Your task to perform on an android device: Is it going to rain today? Image 0: 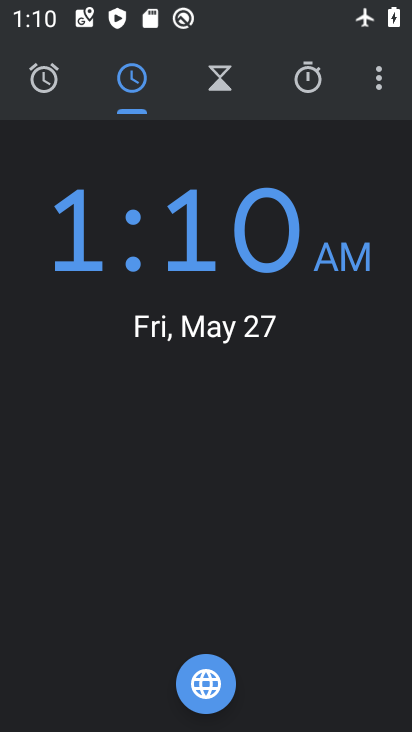
Step 0: press home button
Your task to perform on an android device: Is it going to rain today? Image 1: 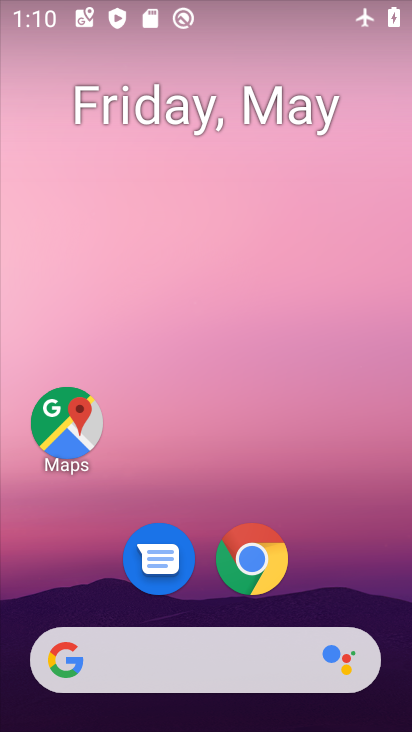
Step 1: drag from (371, 559) to (210, 102)
Your task to perform on an android device: Is it going to rain today? Image 2: 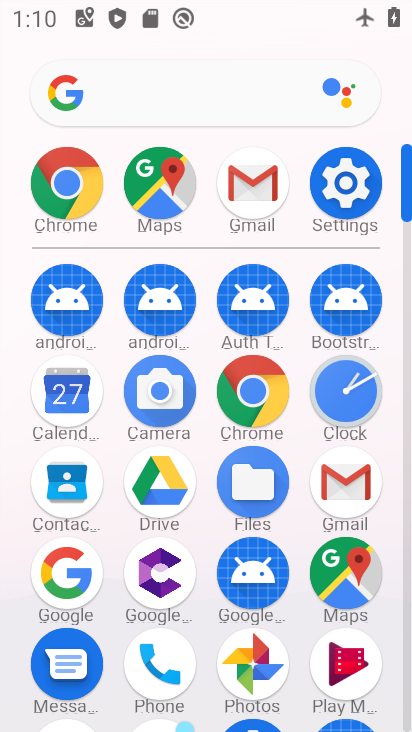
Step 2: click (69, 181)
Your task to perform on an android device: Is it going to rain today? Image 3: 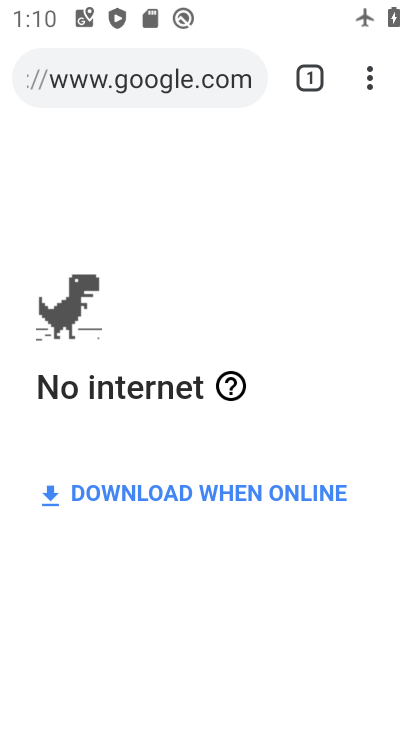
Step 3: click (123, 80)
Your task to perform on an android device: Is it going to rain today? Image 4: 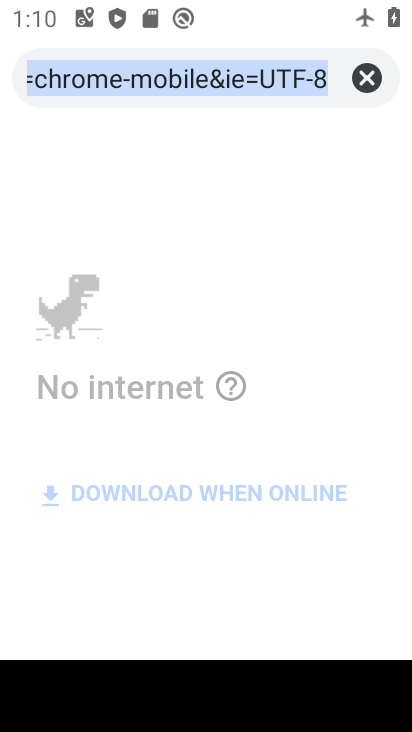
Step 4: type "weather"
Your task to perform on an android device: Is it going to rain today? Image 5: 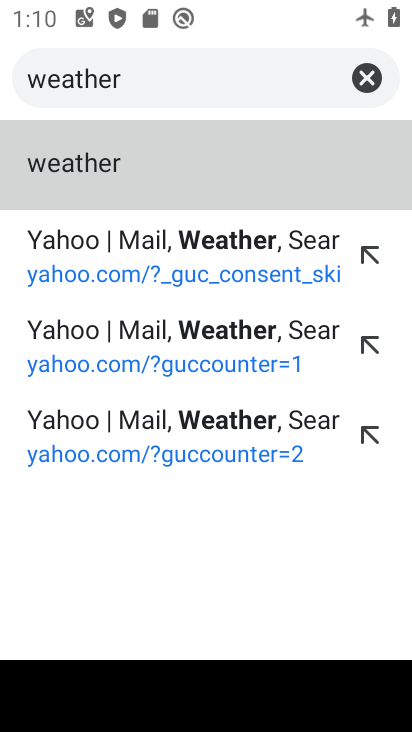
Step 5: click (40, 155)
Your task to perform on an android device: Is it going to rain today? Image 6: 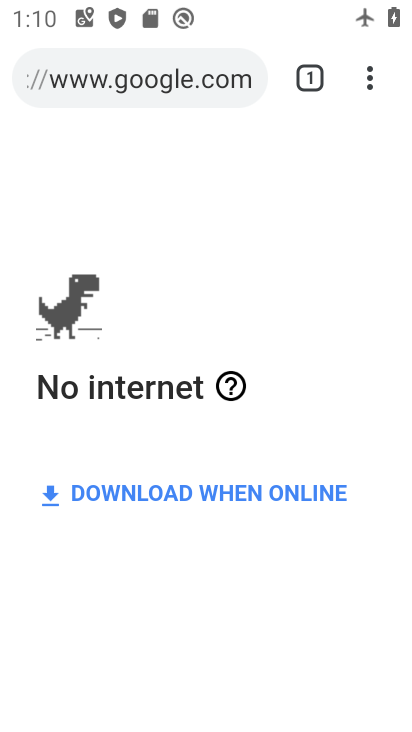
Step 6: task complete